Your task to perform on an android device: Open internet settings Image 0: 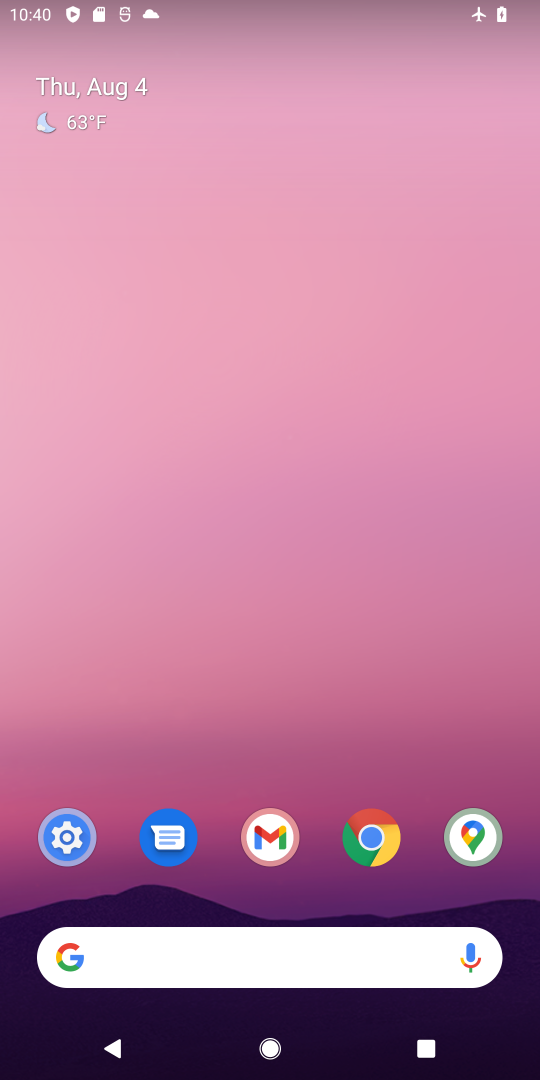
Step 0: drag from (280, 853) to (294, 234)
Your task to perform on an android device: Open internet settings Image 1: 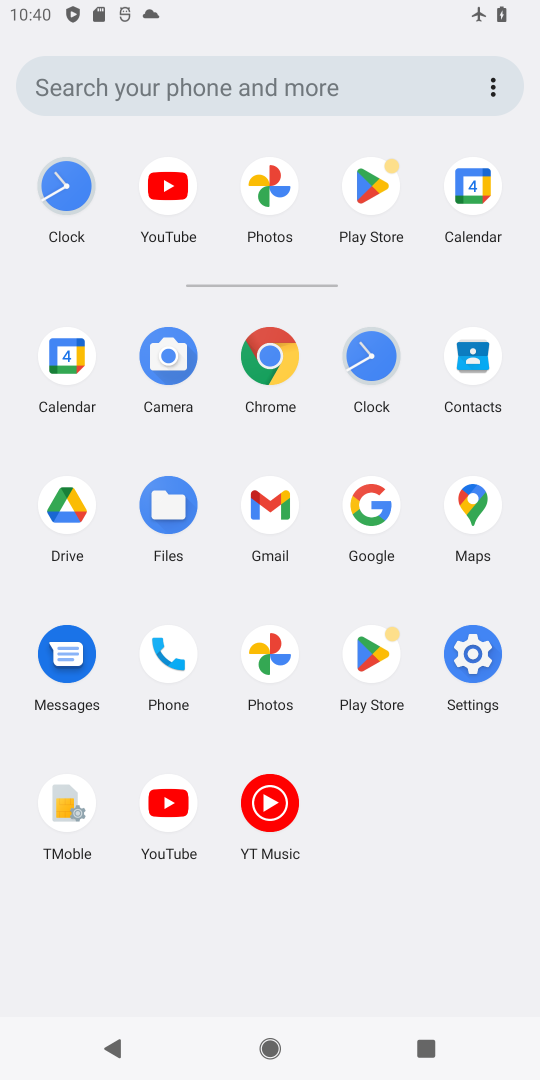
Step 1: click (458, 651)
Your task to perform on an android device: Open internet settings Image 2: 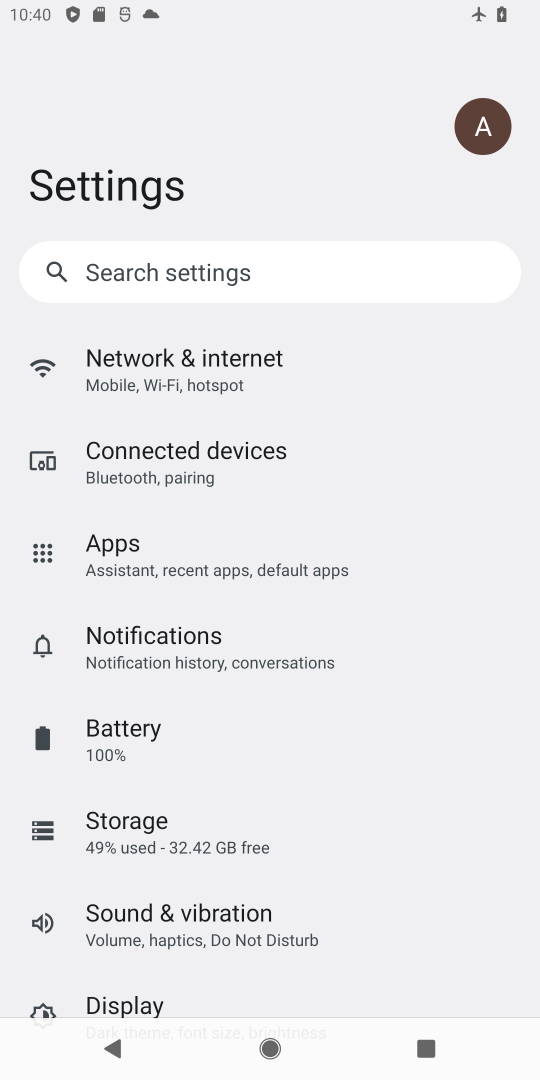
Step 2: click (181, 362)
Your task to perform on an android device: Open internet settings Image 3: 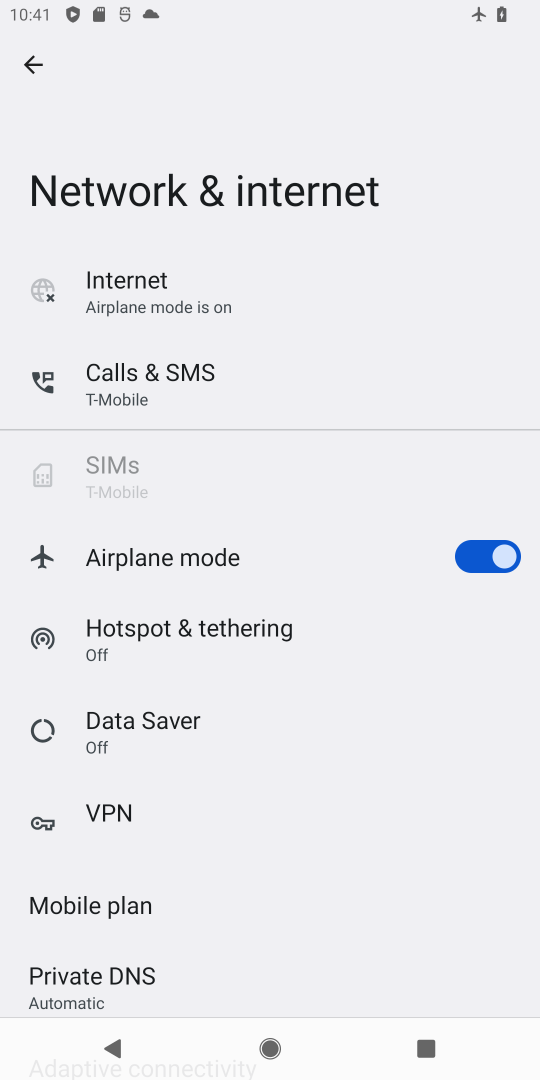
Step 3: task complete